Your task to perform on an android device: Do I have any events today? Image 0: 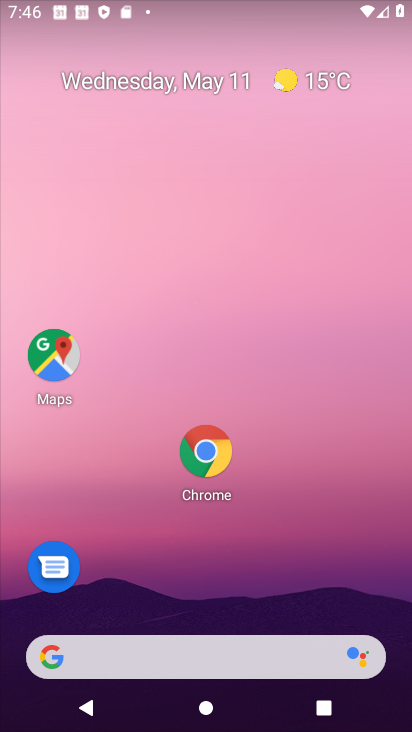
Step 0: drag from (168, 613) to (323, 136)
Your task to perform on an android device: Do I have any events today? Image 1: 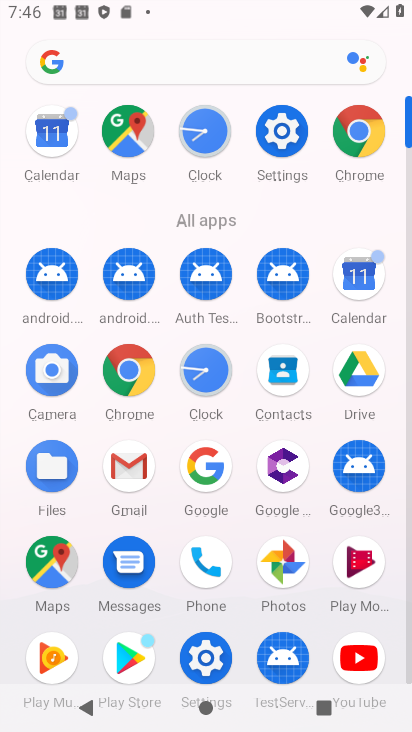
Step 1: click (360, 280)
Your task to perform on an android device: Do I have any events today? Image 2: 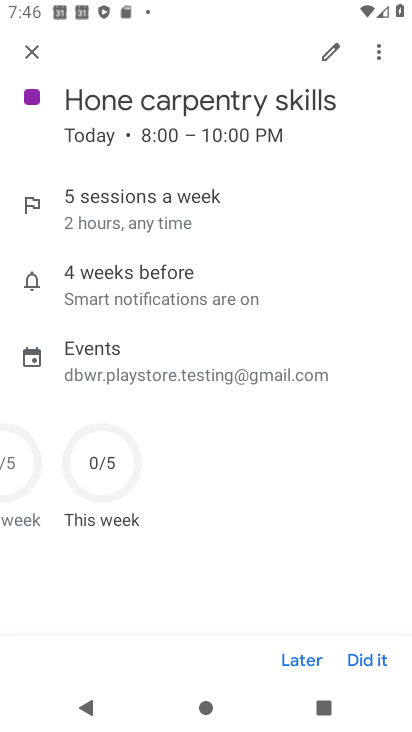
Step 2: click (33, 52)
Your task to perform on an android device: Do I have any events today? Image 3: 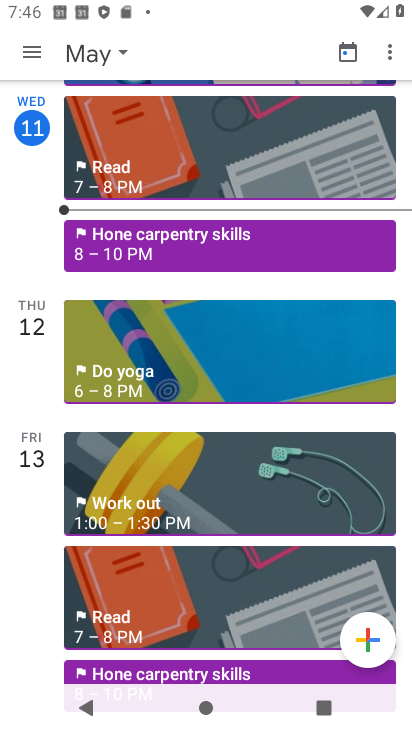
Step 3: click (90, 56)
Your task to perform on an android device: Do I have any events today? Image 4: 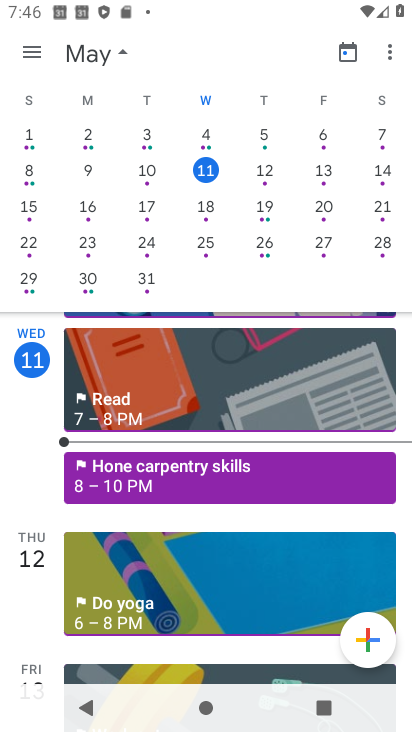
Step 4: click (266, 175)
Your task to perform on an android device: Do I have any events today? Image 5: 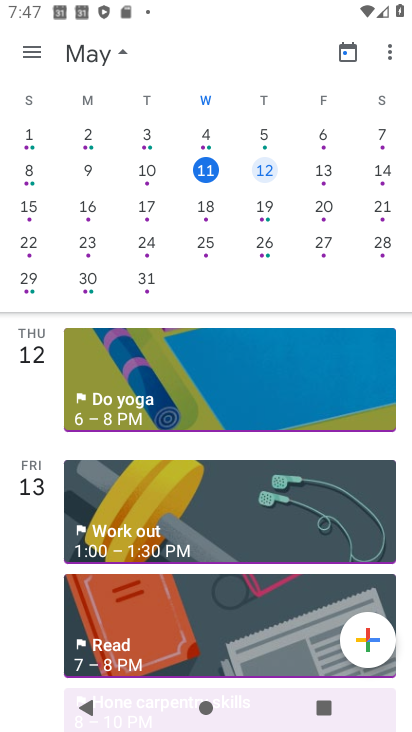
Step 5: click (35, 49)
Your task to perform on an android device: Do I have any events today? Image 6: 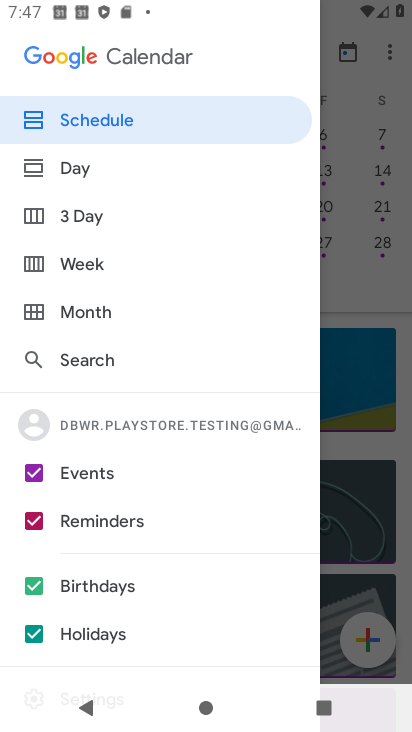
Step 6: click (74, 170)
Your task to perform on an android device: Do I have any events today? Image 7: 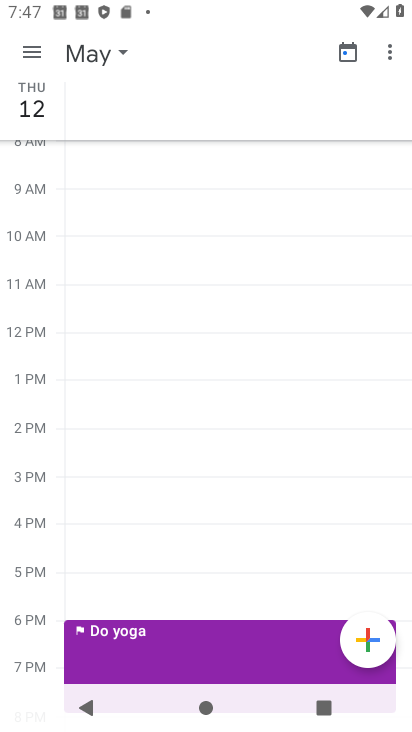
Step 7: click (34, 48)
Your task to perform on an android device: Do I have any events today? Image 8: 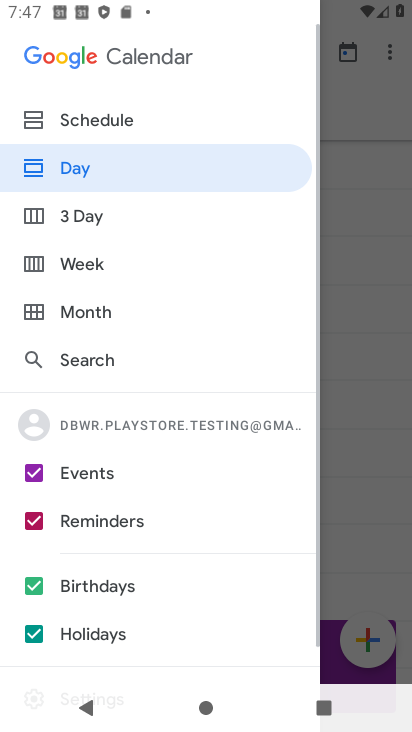
Step 8: click (101, 128)
Your task to perform on an android device: Do I have any events today? Image 9: 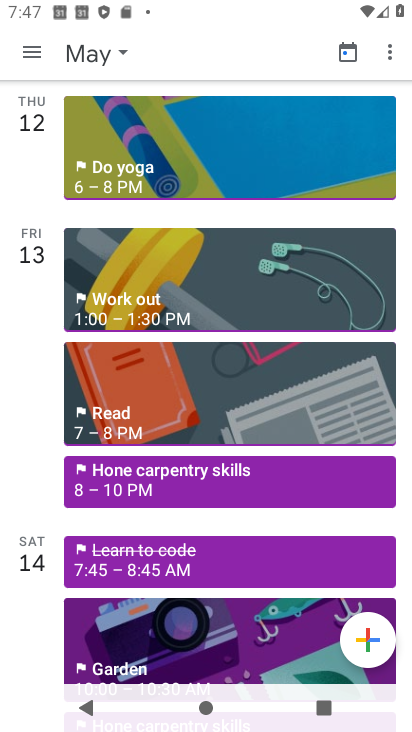
Step 9: drag from (185, 133) to (225, 237)
Your task to perform on an android device: Do I have any events today? Image 10: 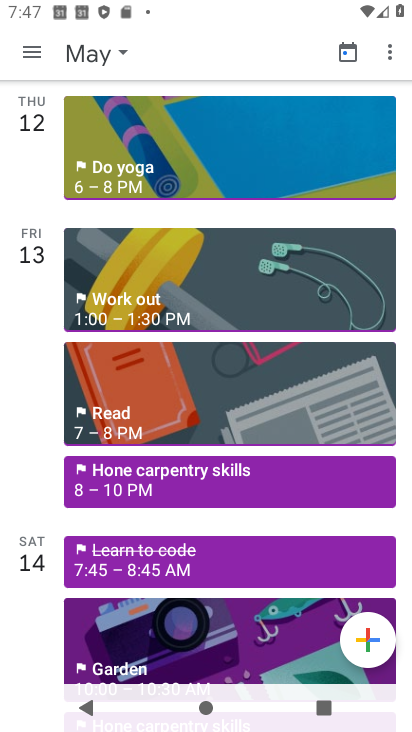
Step 10: click (207, 171)
Your task to perform on an android device: Do I have any events today? Image 11: 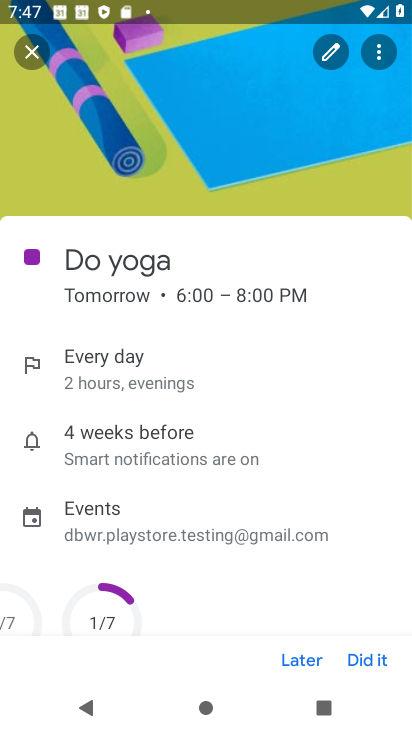
Step 11: click (121, 592)
Your task to perform on an android device: Do I have any events today? Image 12: 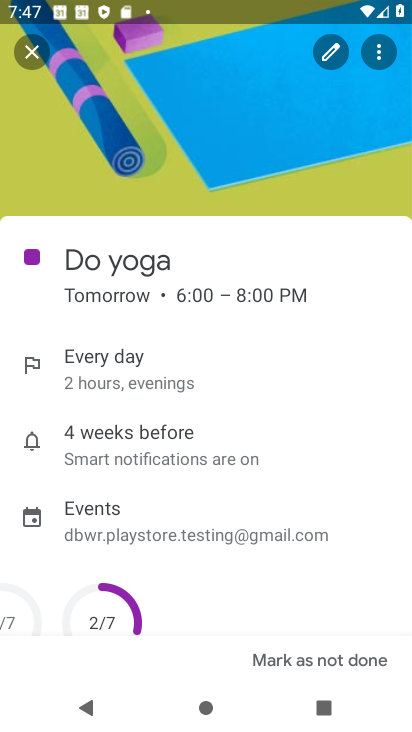
Step 12: task complete